Your task to perform on an android device: Add "razer nari" to the cart on bestbuy Image 0: 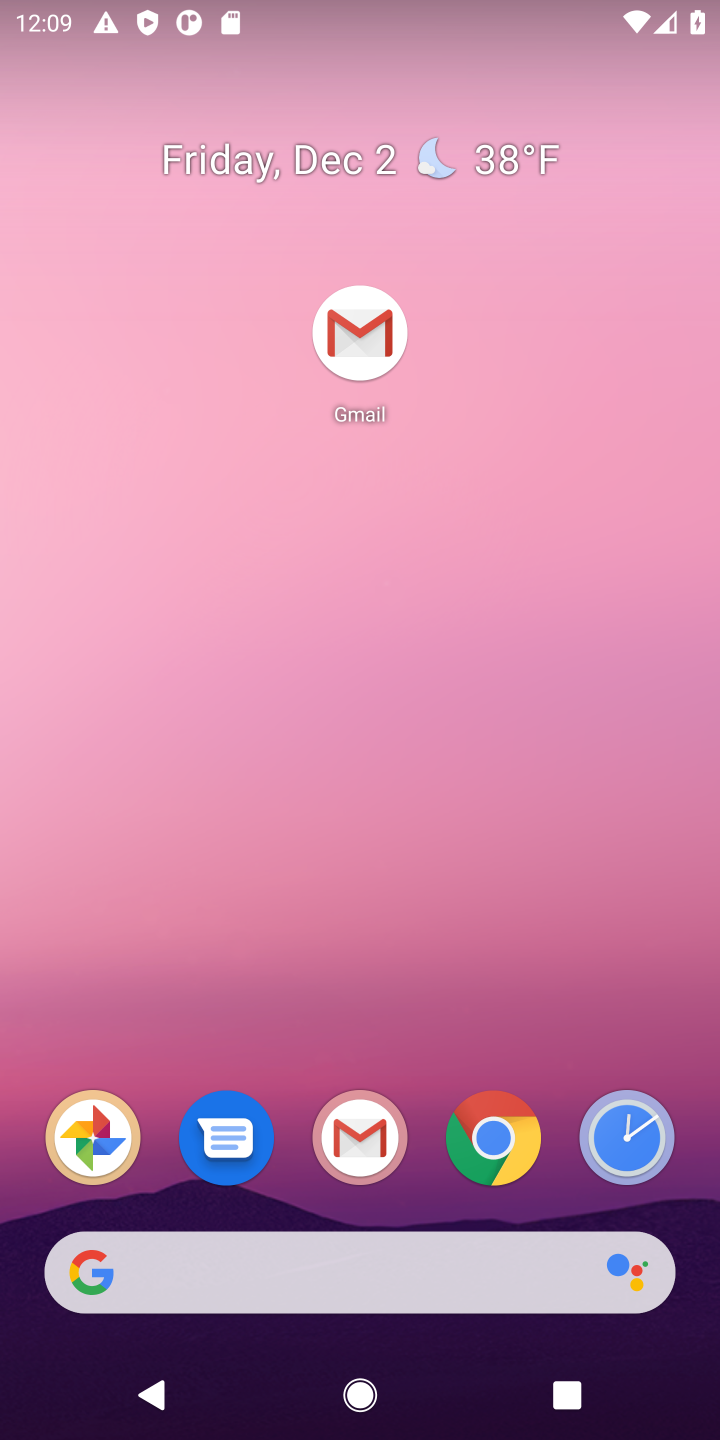
Step 0: drag from (538, 1002) to (529, 55)
Your task to perform on an android device: Add "razer nari" to the cart on bestbuy Image 1: 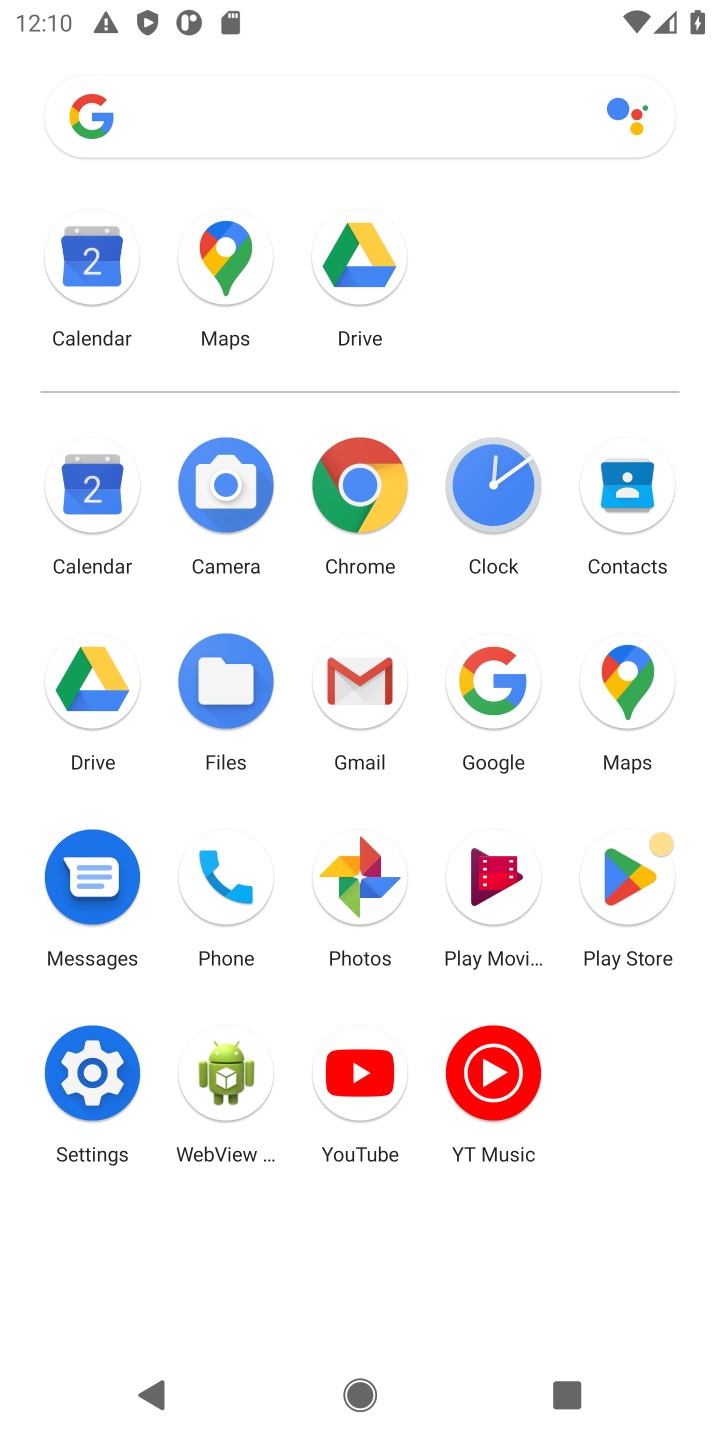
Step 1: click (473, 741)
Your task to perform on an android device: Add "razer nari" to the cart on bestbuy Image 2: 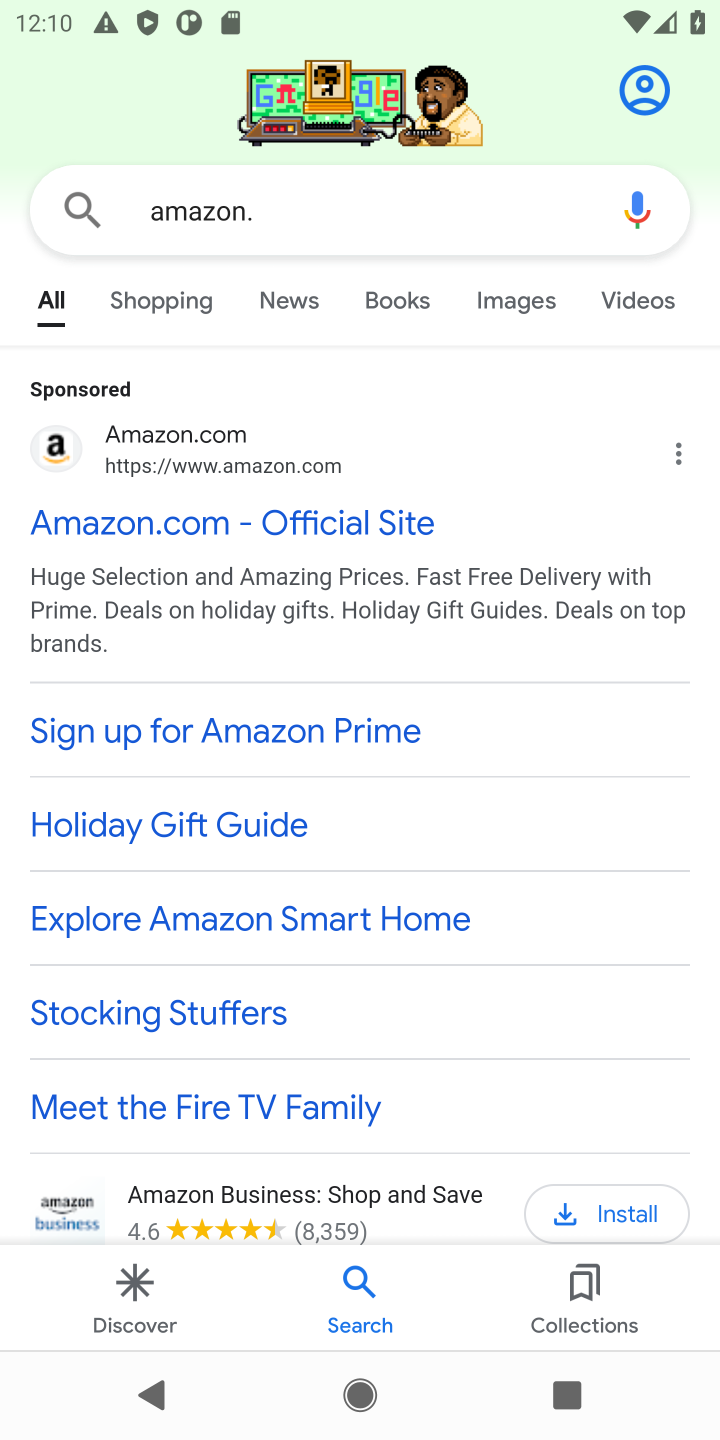
Step 2: click (320, 208)
Your task to perform on an android device: Add "razer nari" to the cart on bestbuy Image 3: 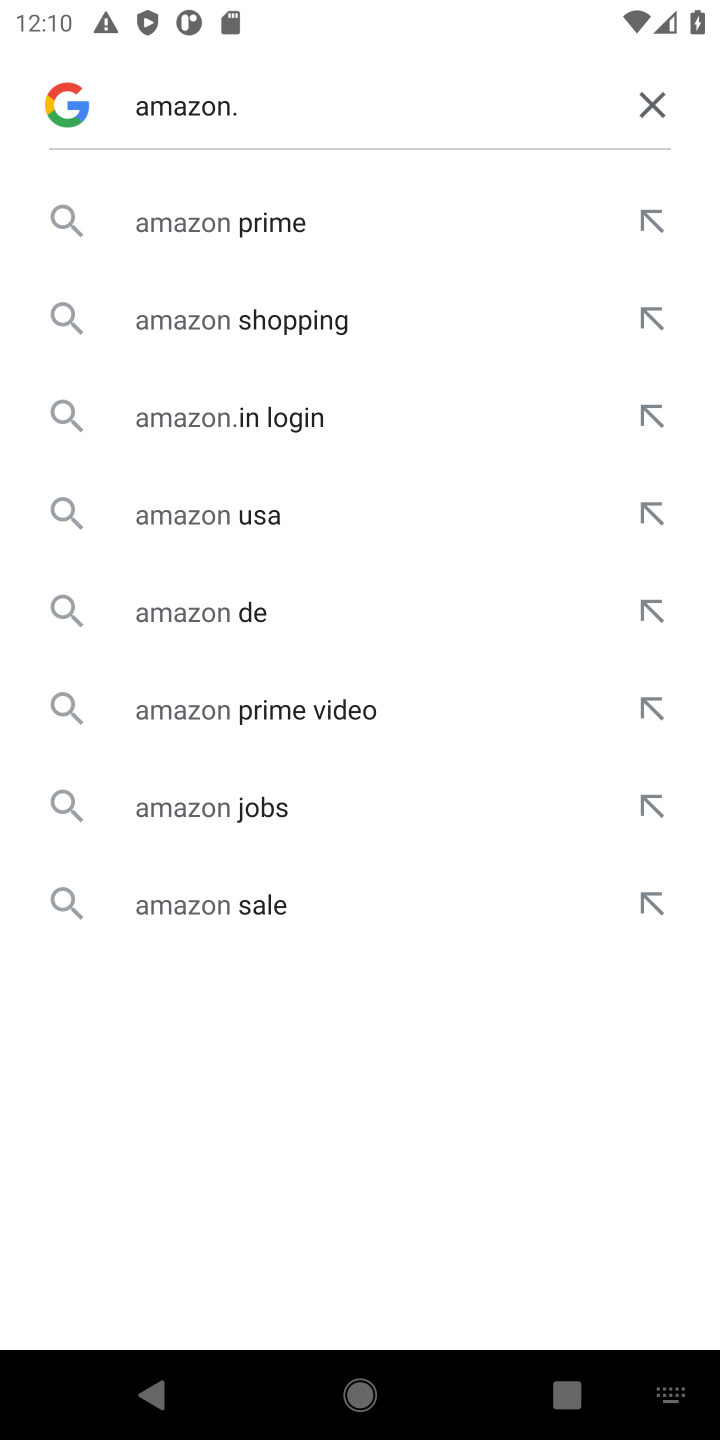
Step 3: click (663, 113)
Your task to perform on an android device: Add "razer nari" to the cart on bestbuy Image 4: 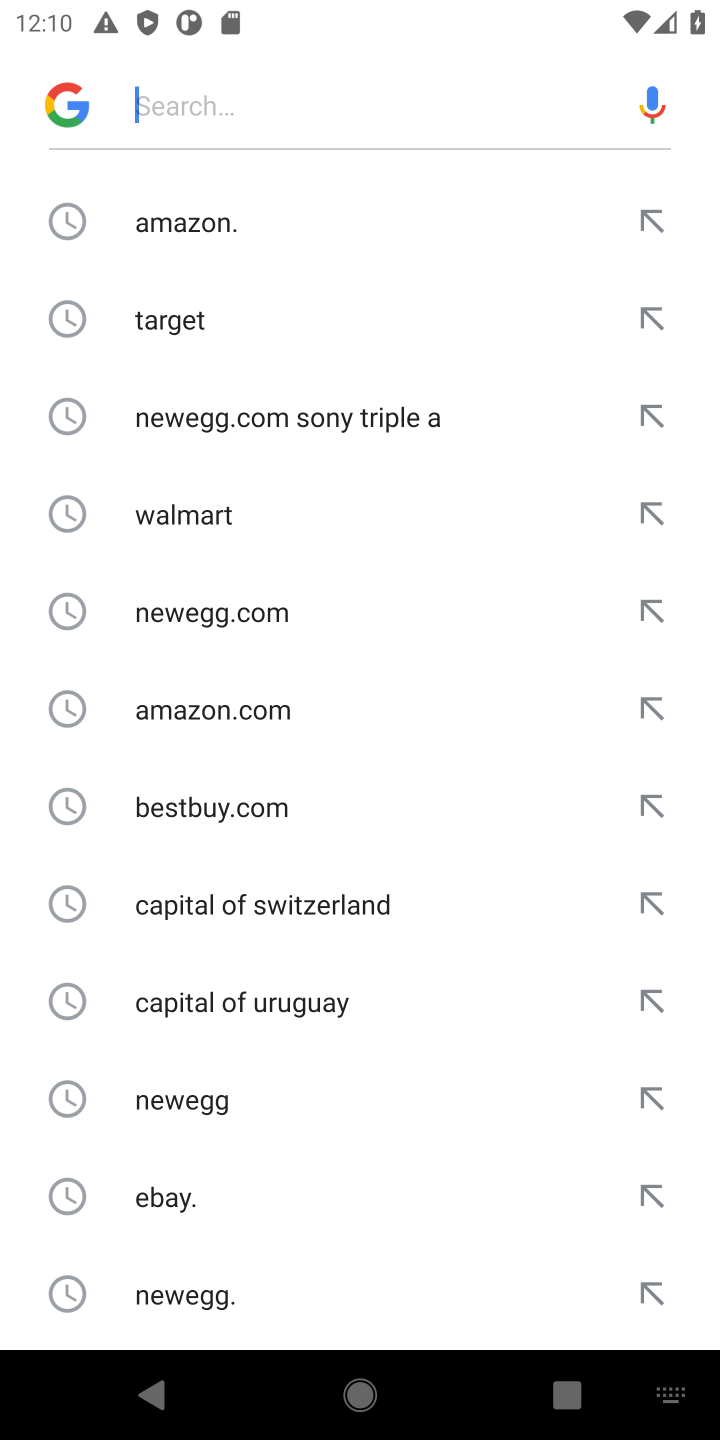
Step 4: click (285, 795)
Your task to perform on an android device: Add "razer nari" to the cart on bestbuy Image 5: 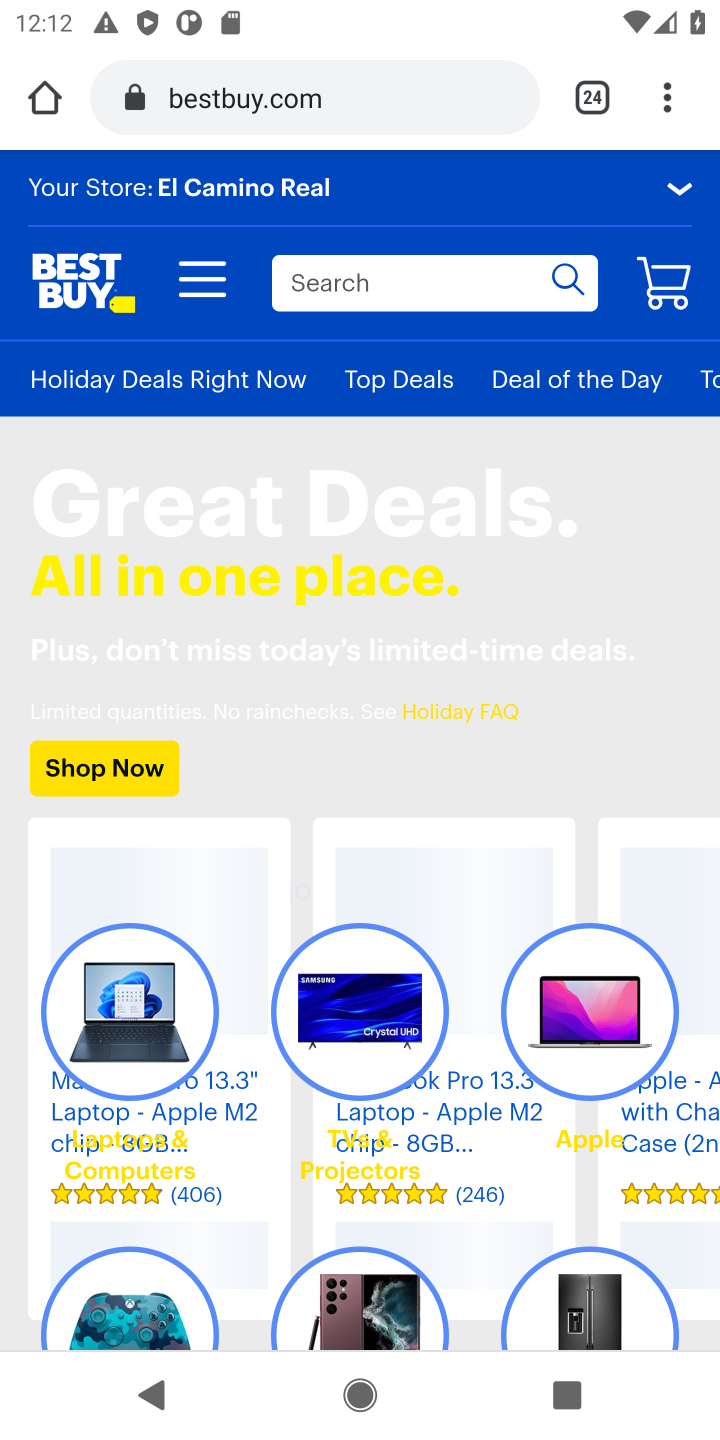
Step 5: click (395, 306)
Your task to perform on an android device: Add "razer nari" to the cart on bestbuy Image 6: 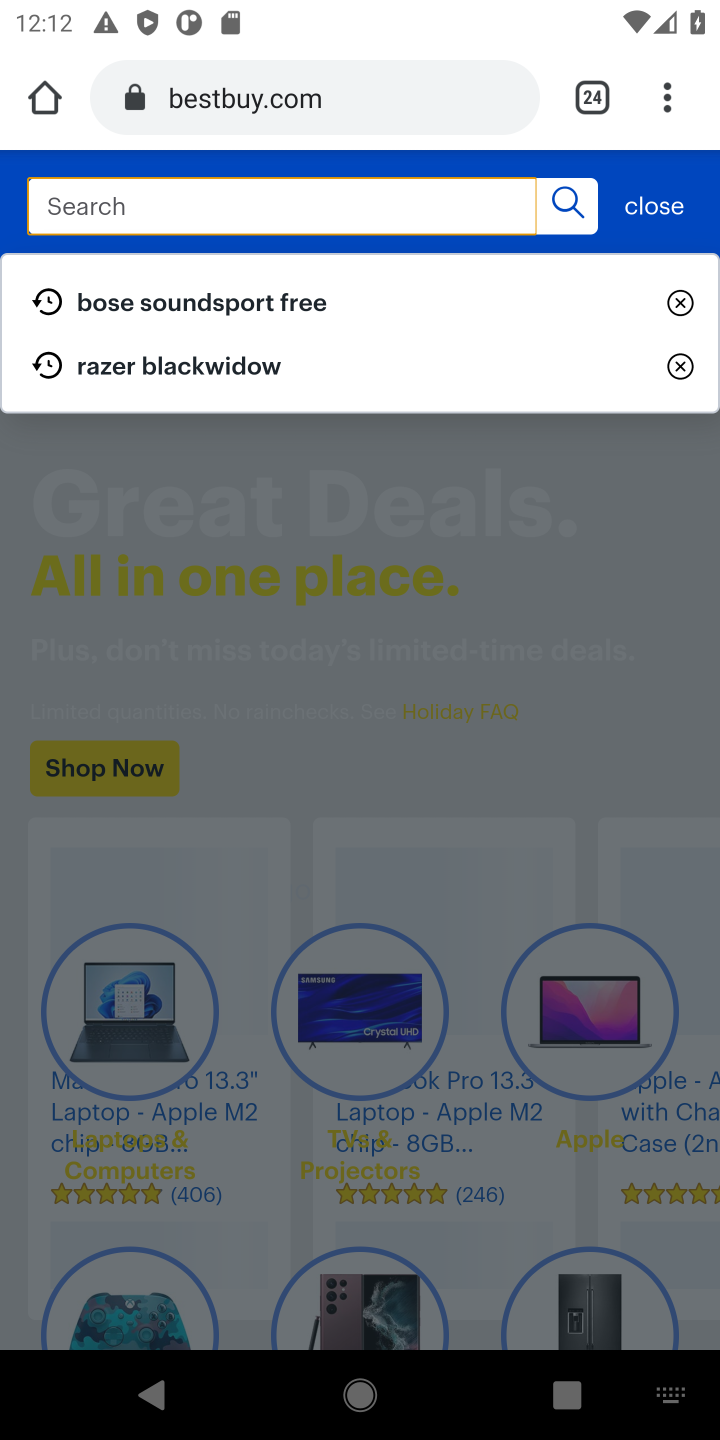
Step 6: type "razer nari"
Your task to perform on an android device: Add "razer nari" to the cart on bestbuy Image 7: 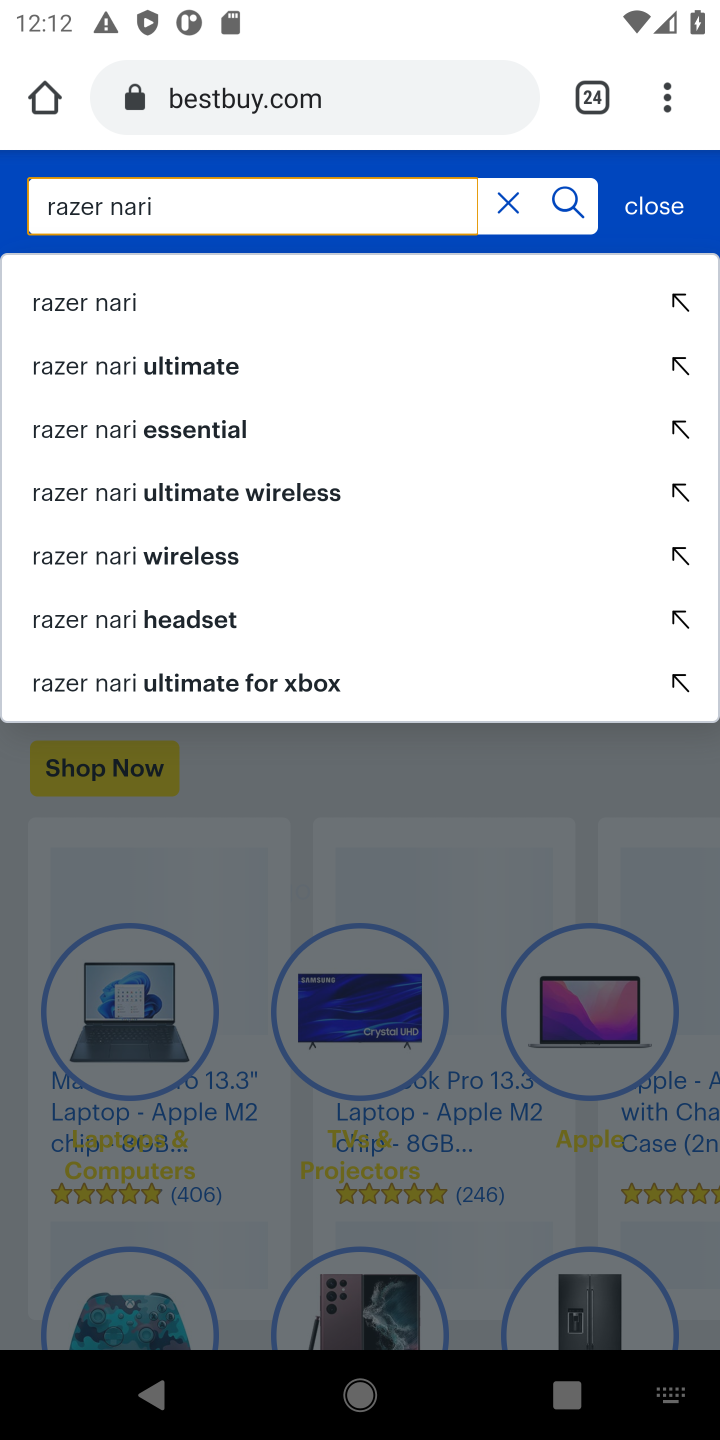
Step 7: click (134, 301)
Your task to perform on an android device: Add "razer nari" to the cart on bestbuy Image 8: 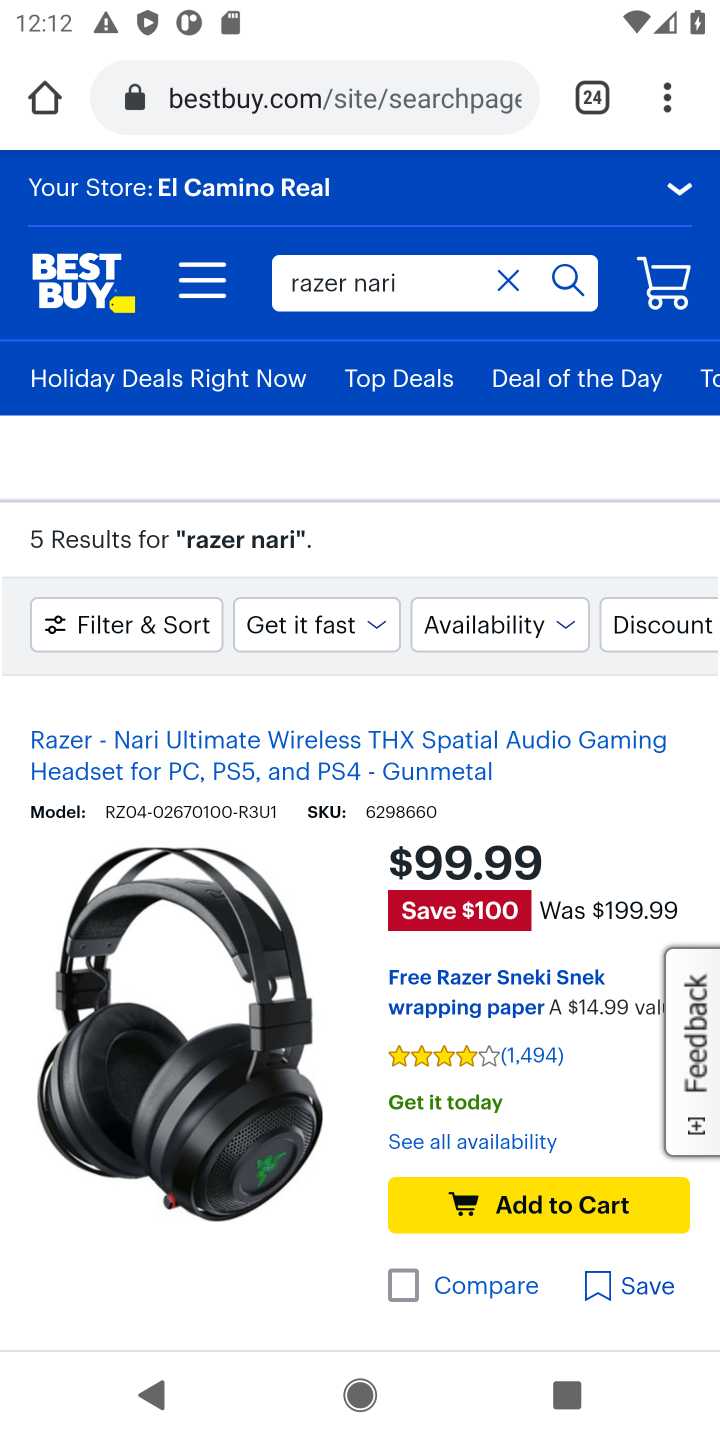
Step 8: click (266, 961)
Your task to perform on an android device: Add "razer nari" to the cart on bestbuy Image 9: 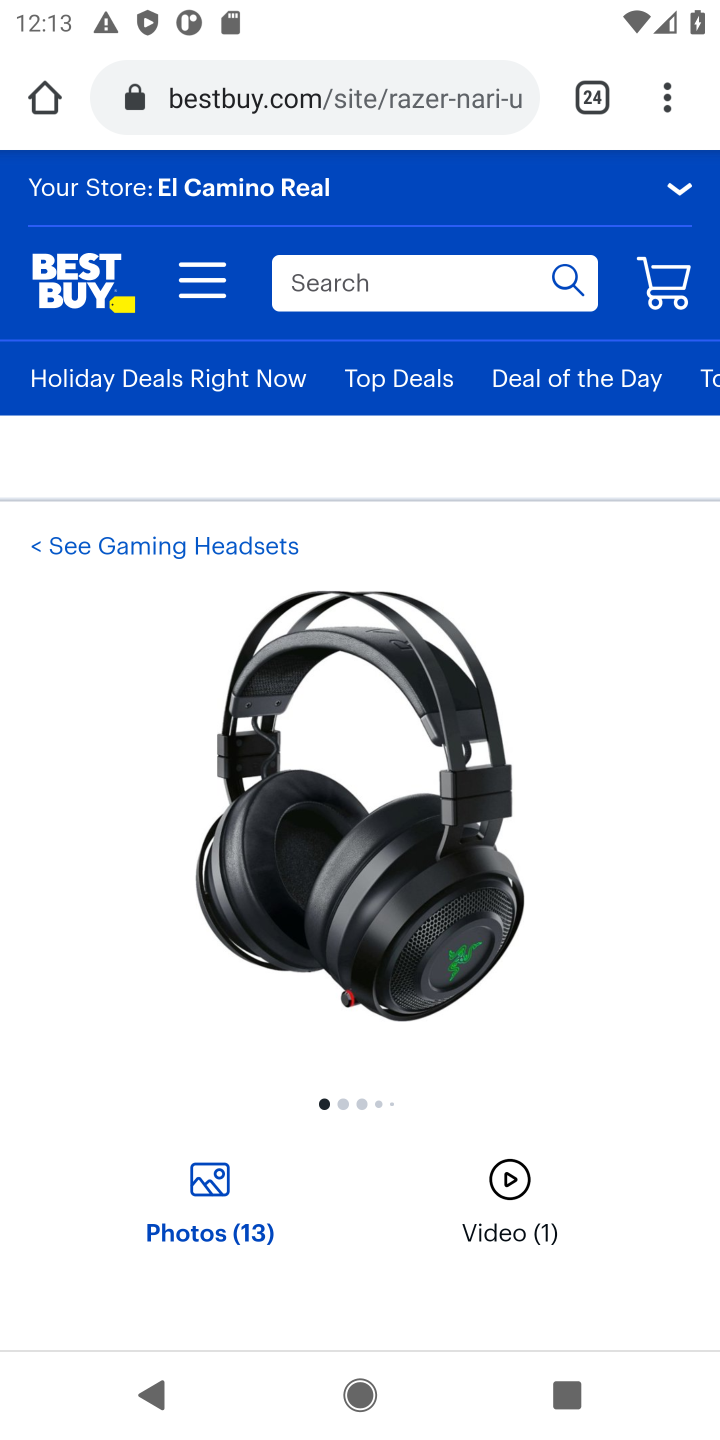
Step 9: drag from (496, 1080) to (534, 516)
Your task to perform on an android device: Add "razer nari" to the cart on bestbuy Image 10: 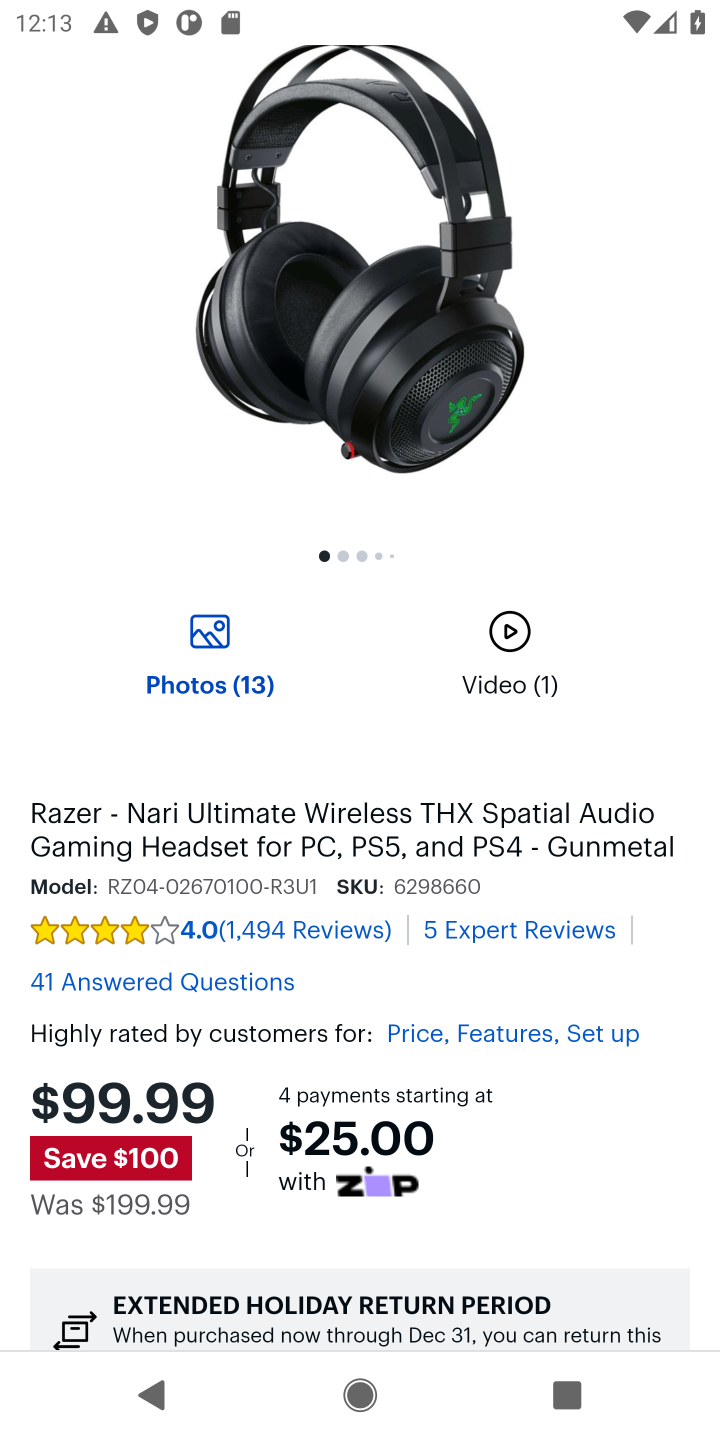
Step 10: drag from (562, 1036) to (556, 426)
Your task to perform on an android device: Add "razer nari" to the cart on bestbuy Image 11: 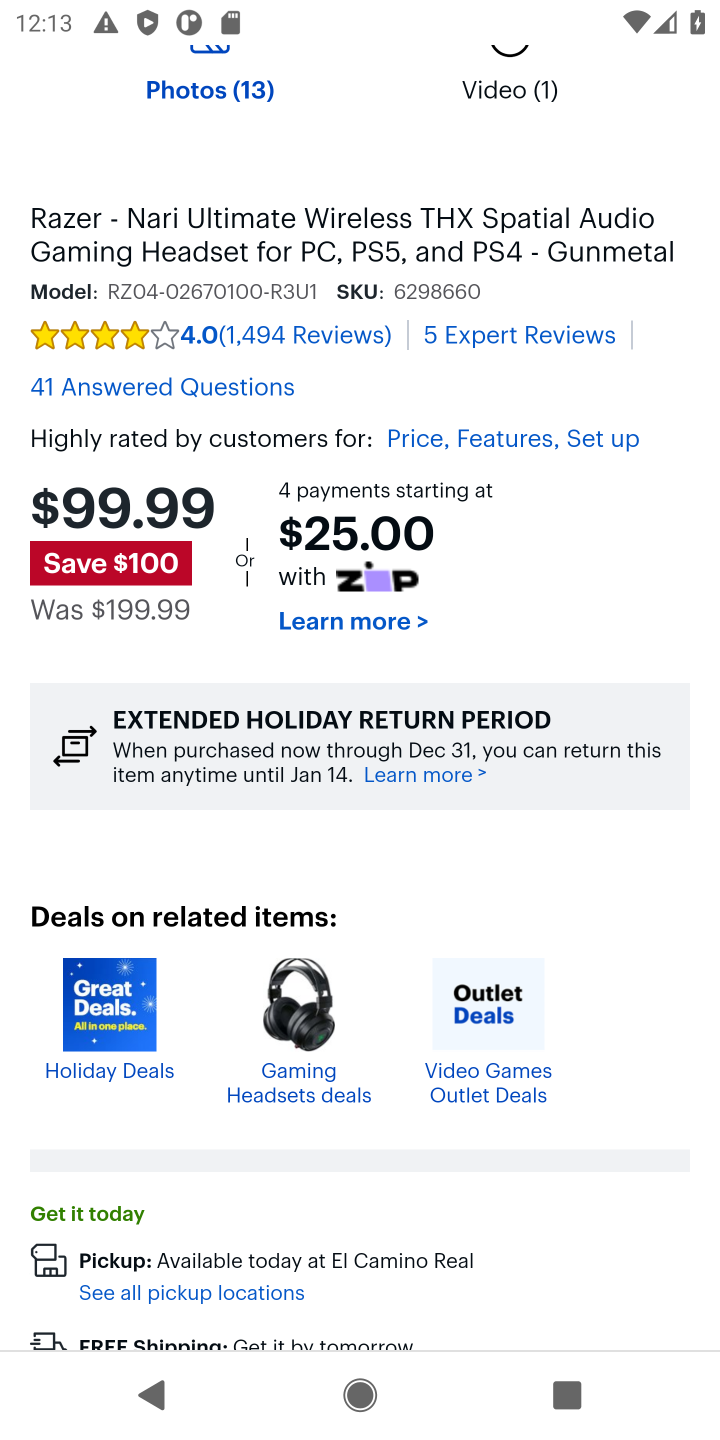
Step 11: drag from (509, 1043) to (534, 565)
Your task to perform on an android device: Add "razer nari" to the cart on bestbuy Image 12: 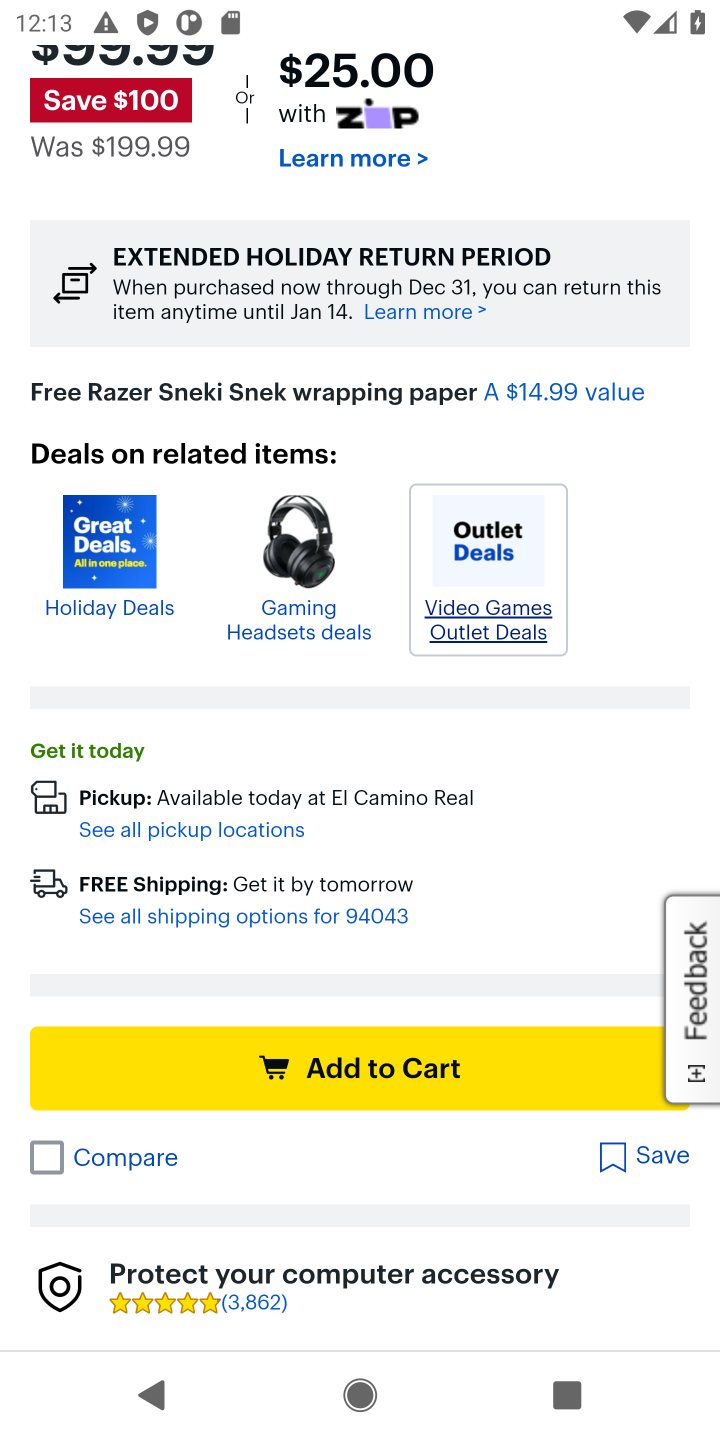
Step 12: click (471, 1058)
Your task to perform on an android device: Add "razer nari" to the cart on bestbuy Image 13: 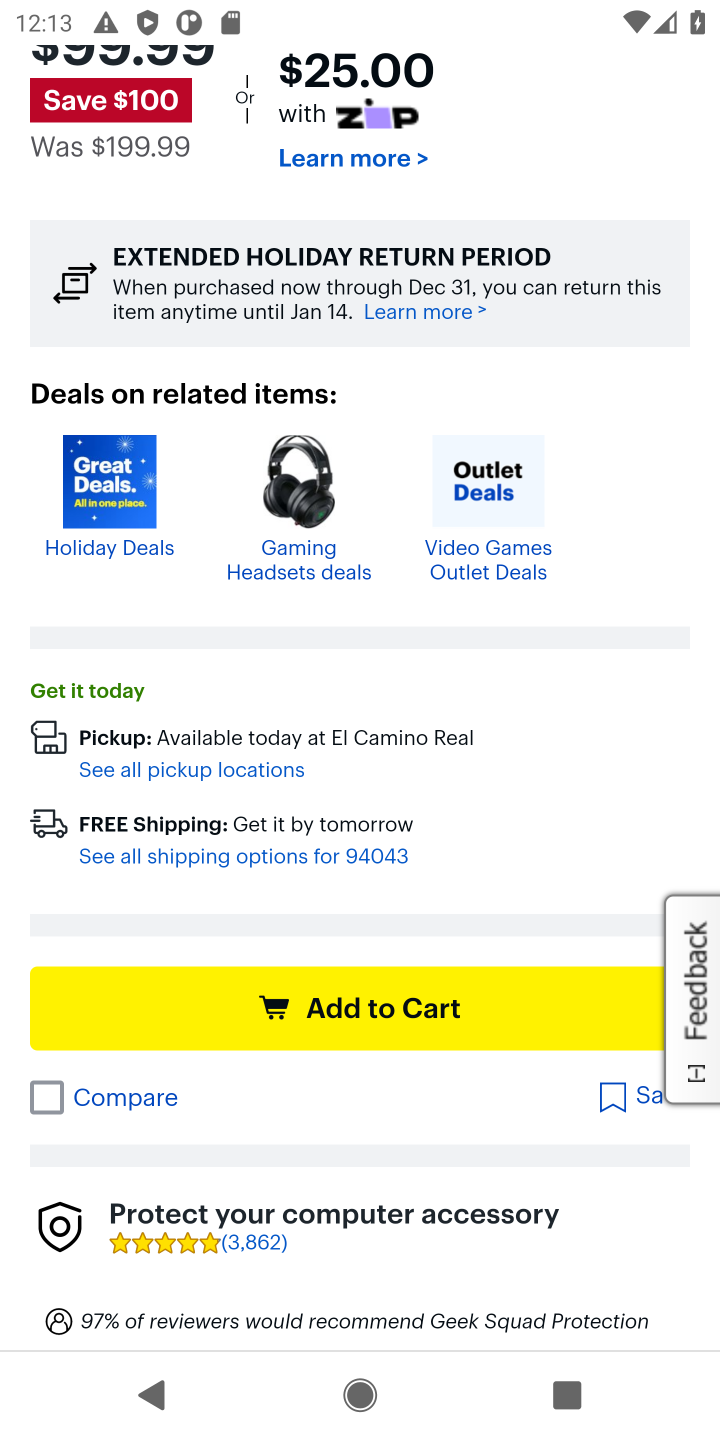
Step 13: task complete